Your task to perform on an android device: Toggle the flashlight Image 0: 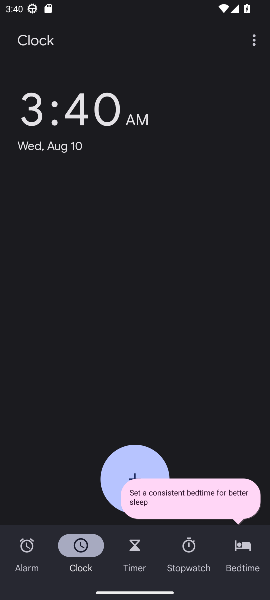
Step 0: press home button
Your task to perform on an android device: Toggle the flashlight Image 1: 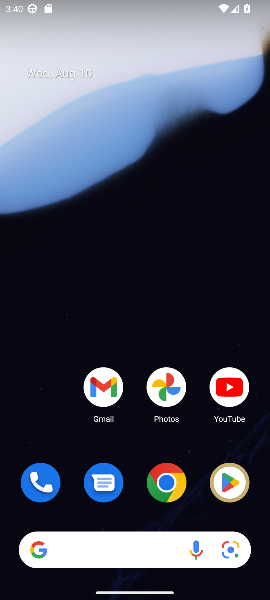
Step 1: task complete